Your task to perform on an android device: Go to network settings Image 0: 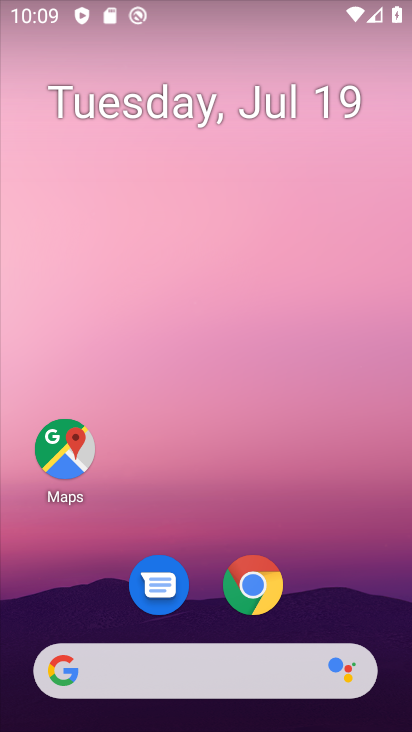
Step 0: drag from (346, 558) to (376, 100)
Your task to perform on an android device: Go to network settings Image 1: 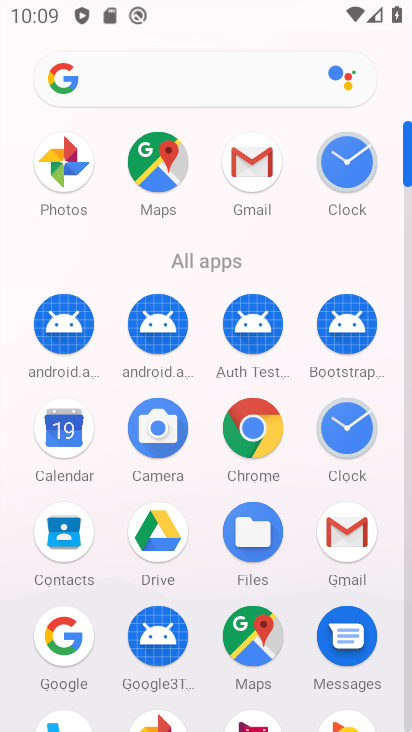
Step 1: drag from (193, 491) to (223, 167)
Your task to perform on an android device: Go to network settings Image 2: 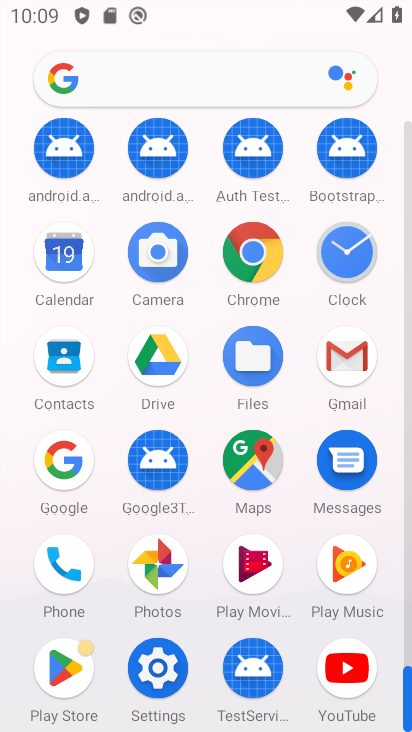
Step 2: click (167, 663)
Your task to perform on an android device: Go to network settings Image 3: 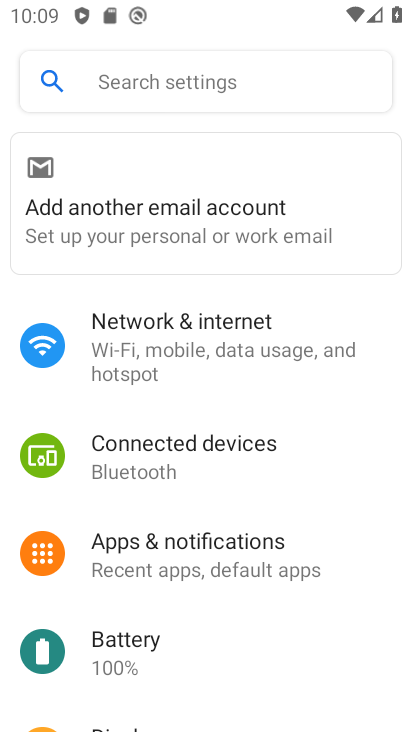
Step 3: click (238, 346)
Your task to perform on an android device: Go to network settings Image 4: 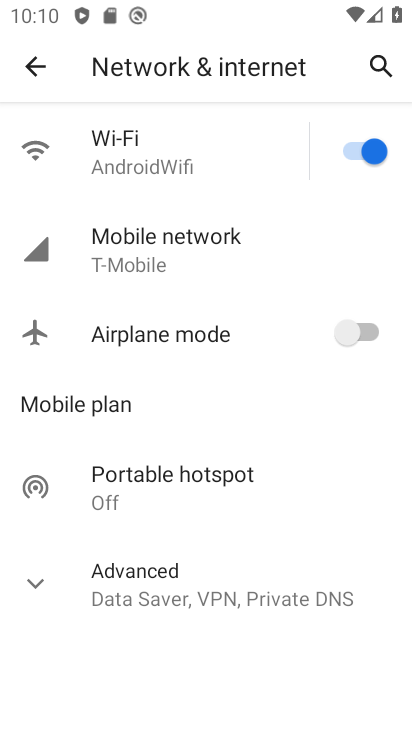
Step 4: task complete